Your task to perform on an android device: turn on improve location accuracy Image 0: 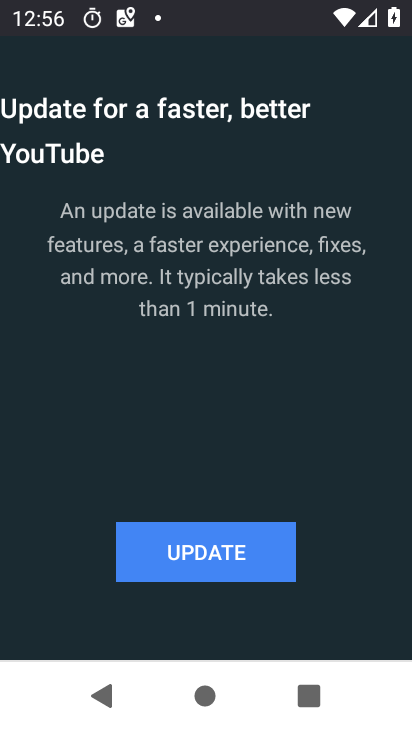
Step 0: press back button
Your task to perform on an android device: turn on improve location accuracy Image 1: 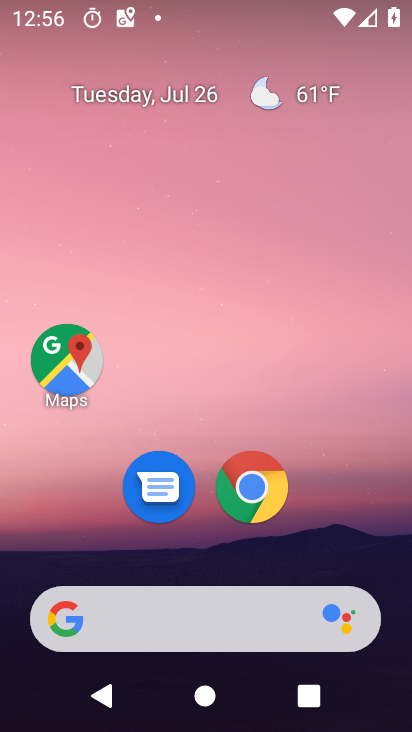
Step 1: drag from (96, 553) to (224, 10)
Your task to perform on an android device: turn on improve location accuracy Image 2: 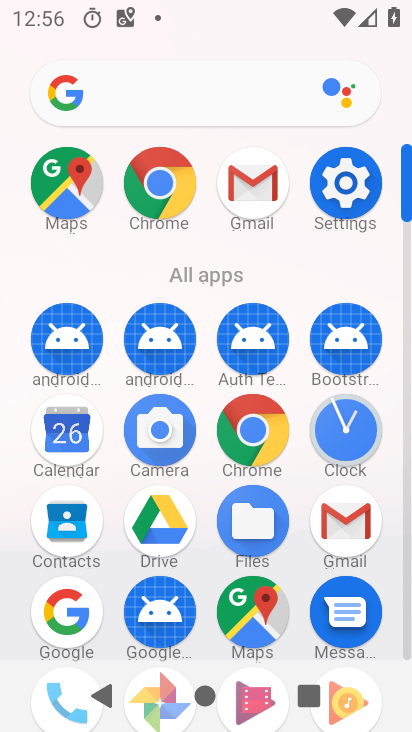
Step 2: click (348, 177)
Your task to perform on an android device: turn on improve location accuracy Image 3: 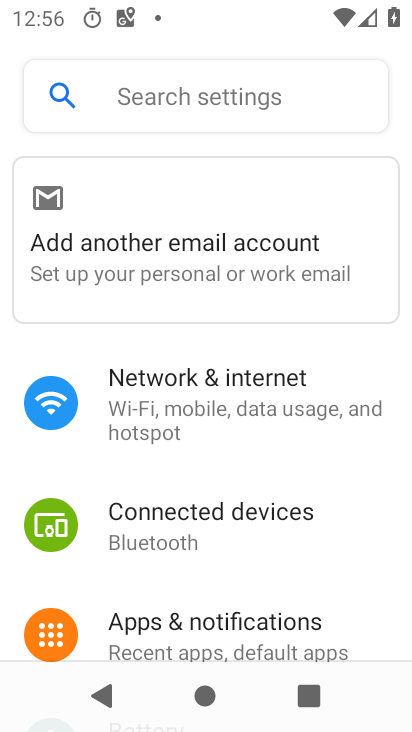
Step 3: drag from (172, 638) to (257, 97)
Your task to perform on an android device: turn on improve location accuracy Image 4: 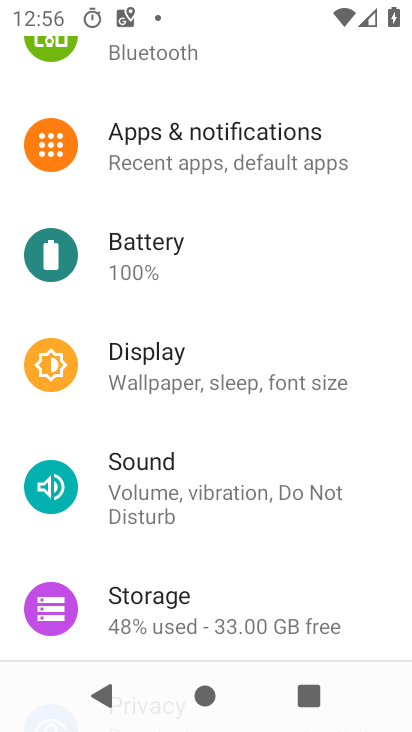
Step 4: drag from (186, 551) to (241, 111)
Your task to perform on an android device: turn on improve location accuracy Image 5: 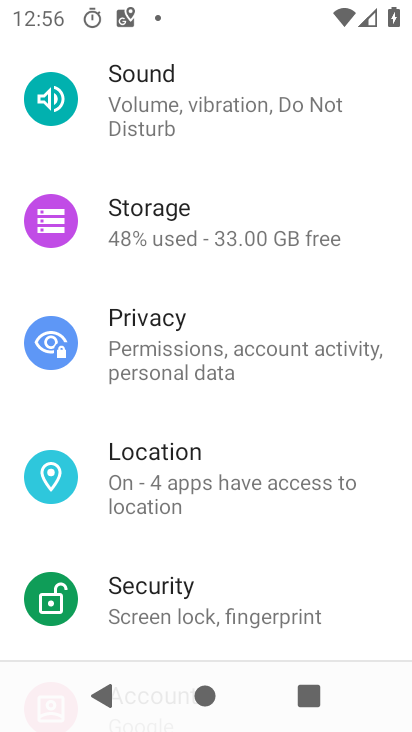
Step 5: click (164, 473)
Your task to perform on an android device: turn on improve location accuracy Image 6: 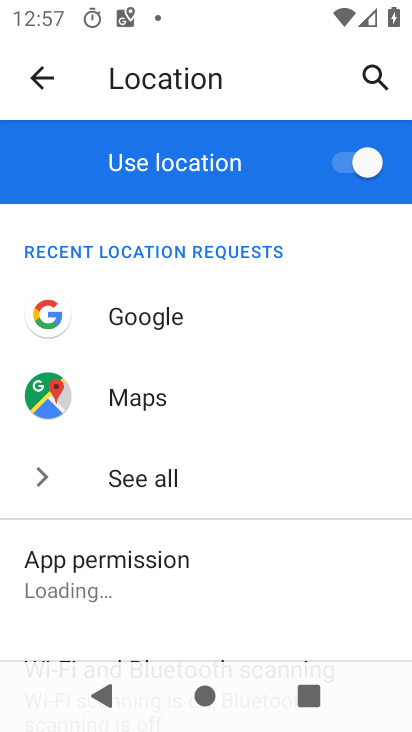
Step 6: drag from (147, 615) to (229, 83)
Your task to perform on an android device: turn on improve location accuracy Image 7: 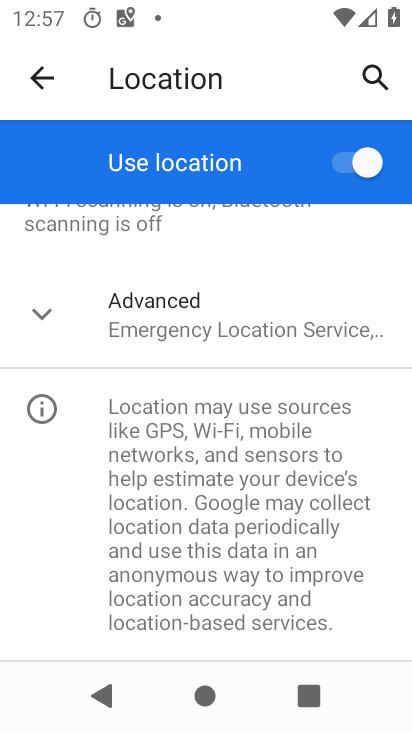
Step 7: click (185, 326)
Your task to perform on an android device: turn on improve location accuracy Image 8: 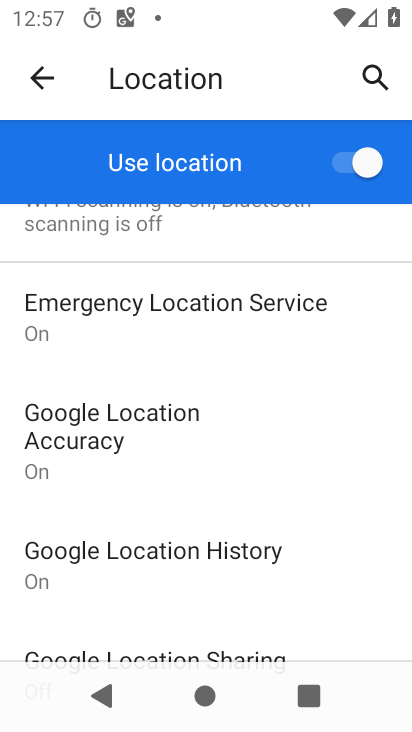
Step 8: click (112, 424)
Your task to perform on an android device: turn on improve location accuracy Image 9: 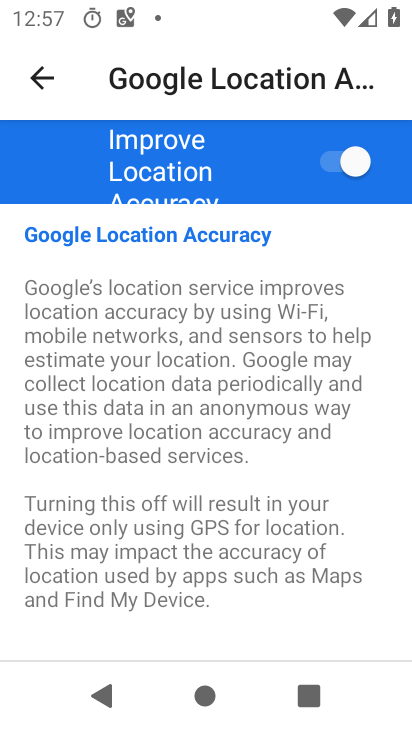
Step 9: task complete